Your task to perform on an android device: set the stopwatch Image 0: 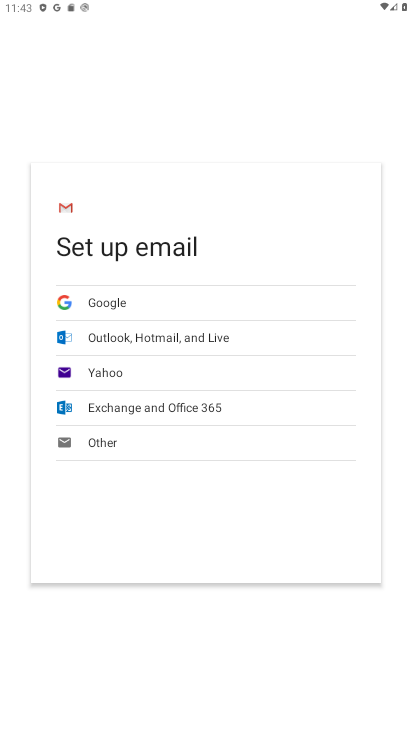
Step 0: press home button
Your task to perform on an android device: set the stopwatch Image 1: 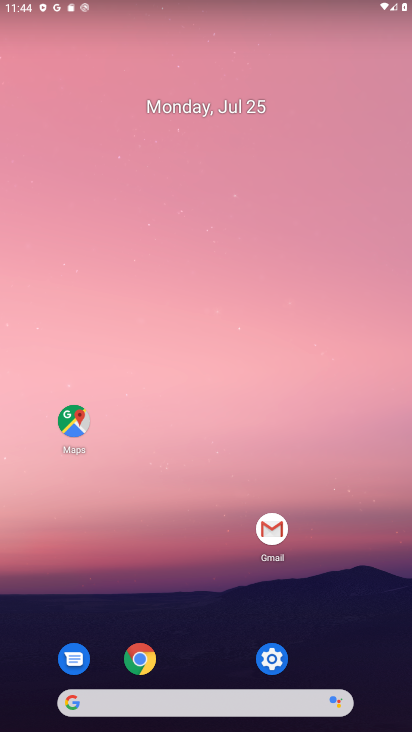
Step 1: drag from (236, 712) to (279, 107)
Your task to perform on an android device: set the stopwatch Image 2: 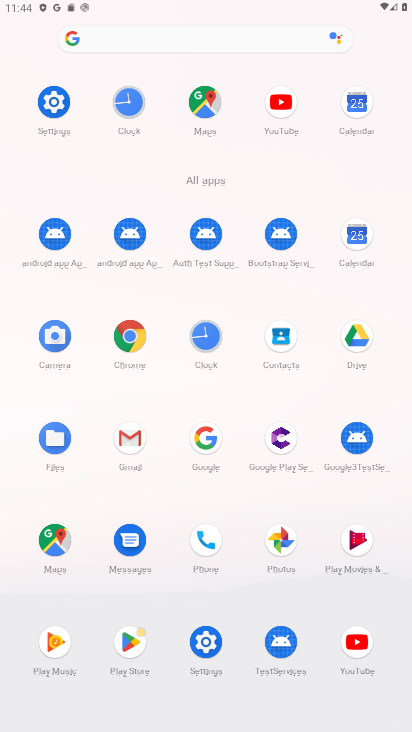
Step 2: click (129, 112)
Your task to perform on an android device: set the stopwatch Image 3: 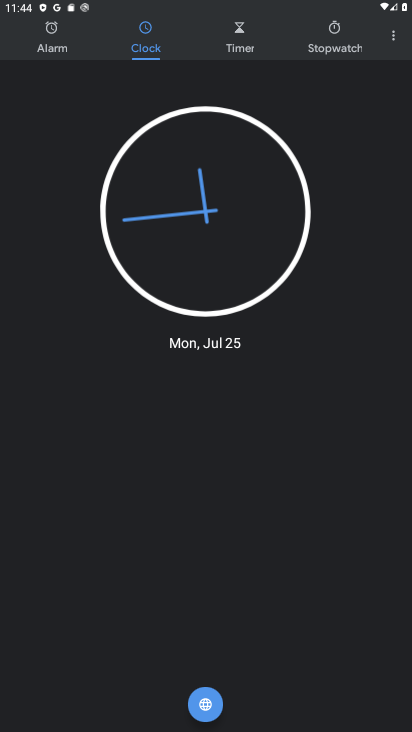
Step 3: click (318, 50)
Your task to perform on an android device: set the stopwatch Image 4: 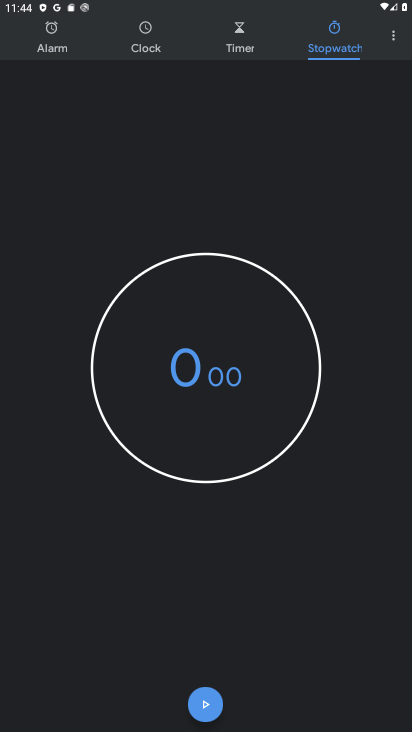
Step 4: click (186, 712)
Your task to perform on an android device: set the stopwatch Image 5: 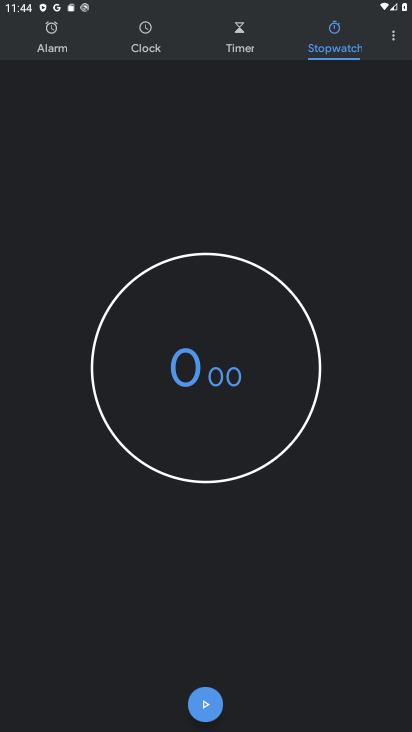
Step 5: click (185, 713)
Your task to perform on an android device: set the stopwatch Image 6: 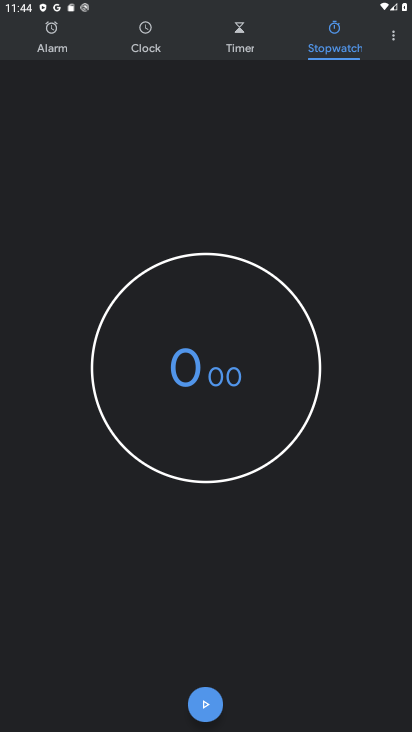
Step 6: click (208, 713)
Your task to perform on an android device: set the stopwatch Image 7: 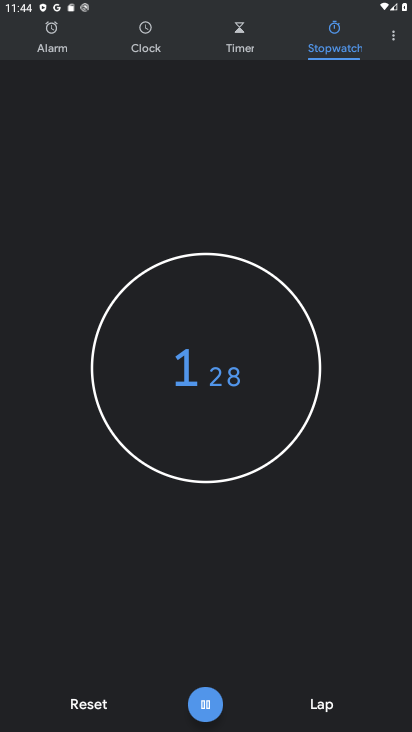
Step 7: click (196, 712)
Your task to perform on an android device: set the stopwatch Image 8: 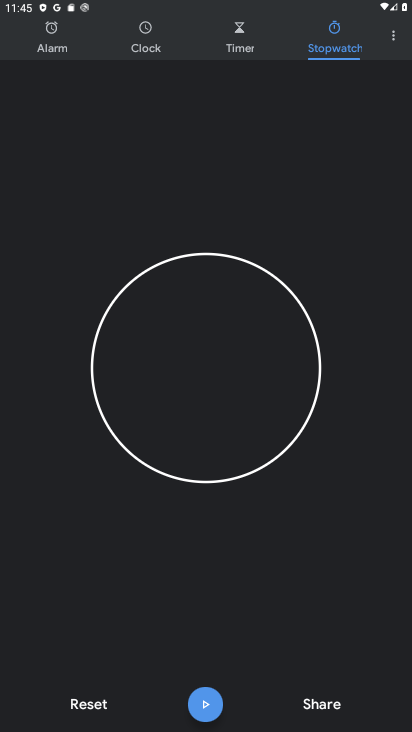
Step 8: task complete